Your task to perform on an android device: turn on translation in the chrome app Image 0: 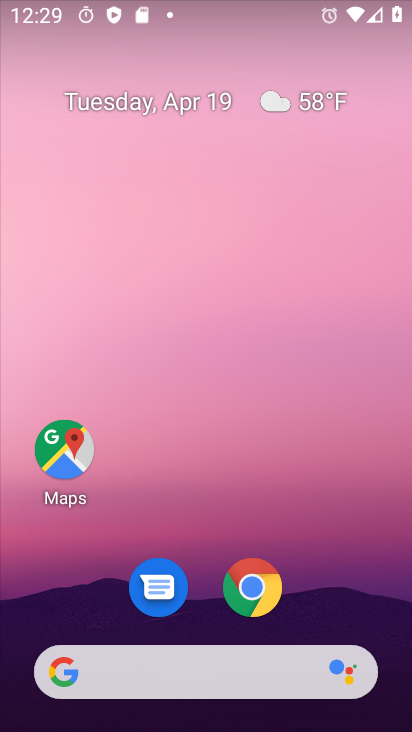
Step 0: drag from (367, 589) to (369, 127)
Your task to perform on an android device: turn on translation in the chrome app Image 1: 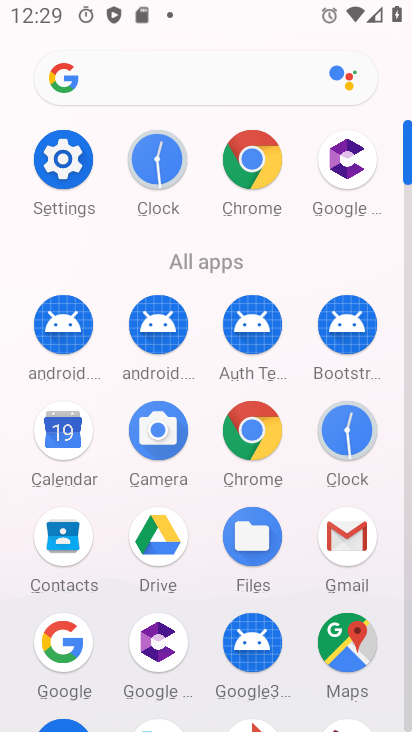
Step 1: click (250, 446)
Your task to perform on an android device: turn on translation in the chrome app Image 2: 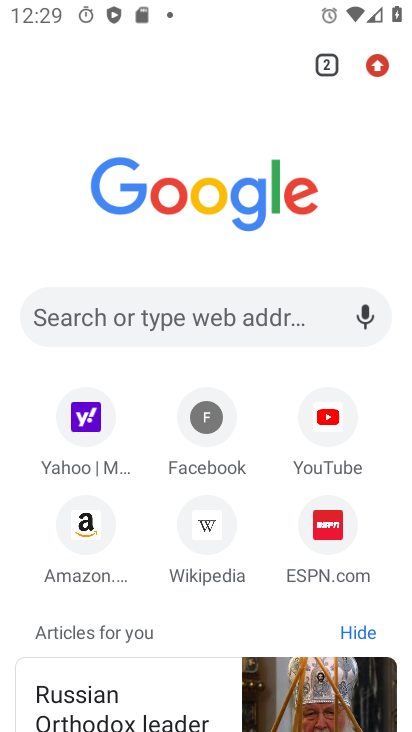
Step 2: click (372, 60)
Your task to perform on an android device: turn on translation in the chrome app Image 3: 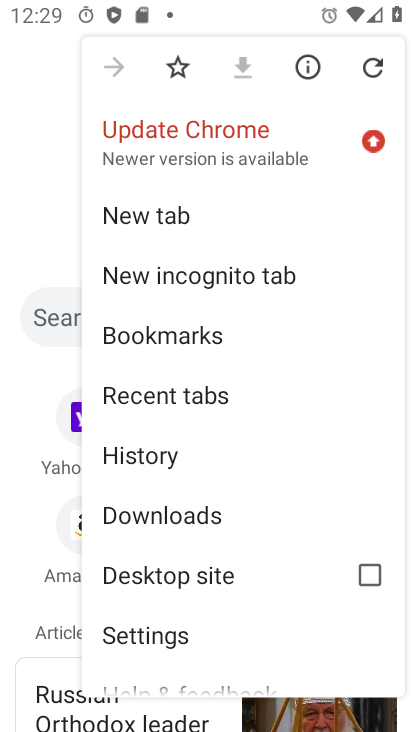
Step 3: drag from (242, 551) to (297, 259)
Your task to perform on an android device: turn on translation in the chrome app Image 4: 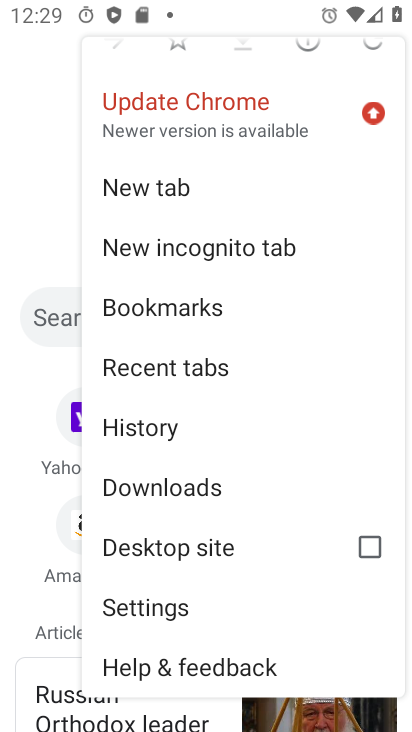
Step 4: click (157, 608)
Your task to perform on an android device: turn on translation in the chrome app Image 5: 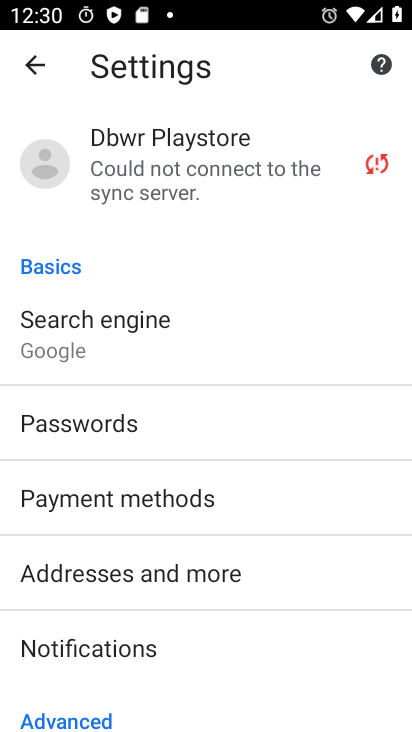
Step 5: drag from (276, 647) to (324, 303)
Your task to perform on an android device: turn on translation in the chrome app Image 6: 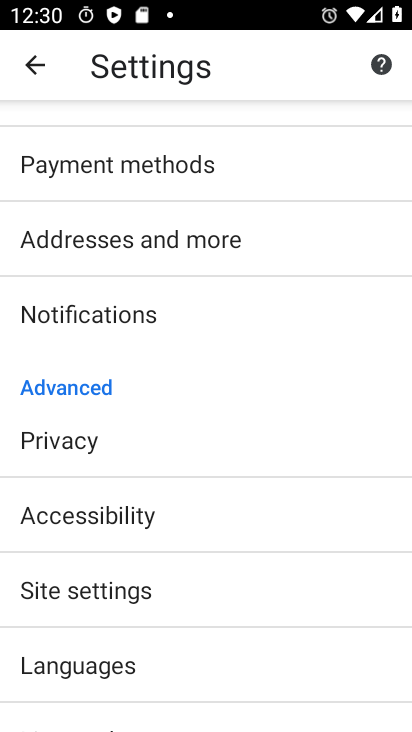
Step 6: click (100, 674)
Your task to perform on an android device: turn on translation in the chrome app Image 7: 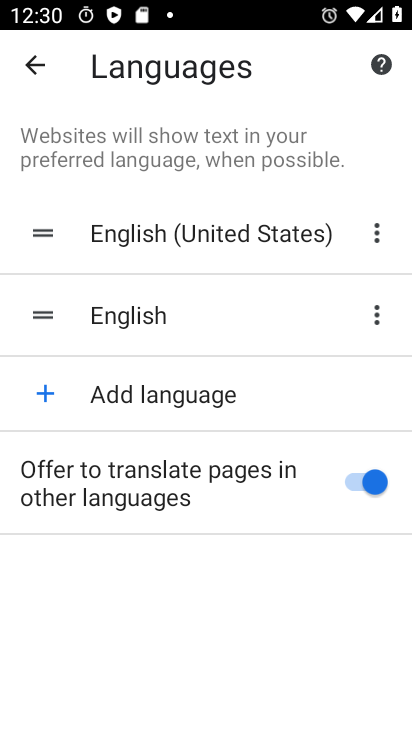
Step 7: task complete